Your task to perform on an android device: Open Amazon Image 0: 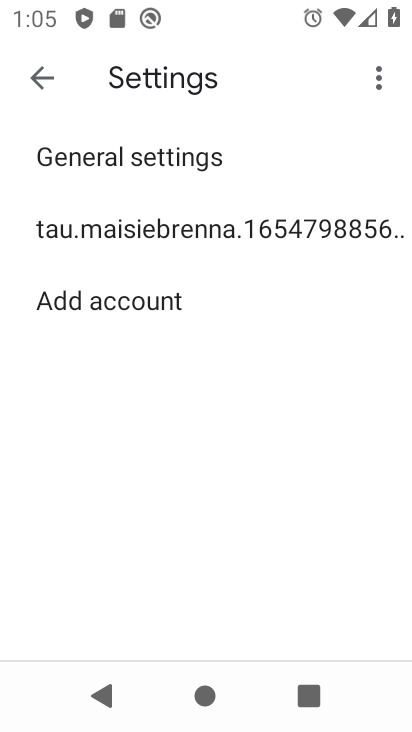
Step 0: press home button
Your task to perform on an android device: Open Amazon Image 1: 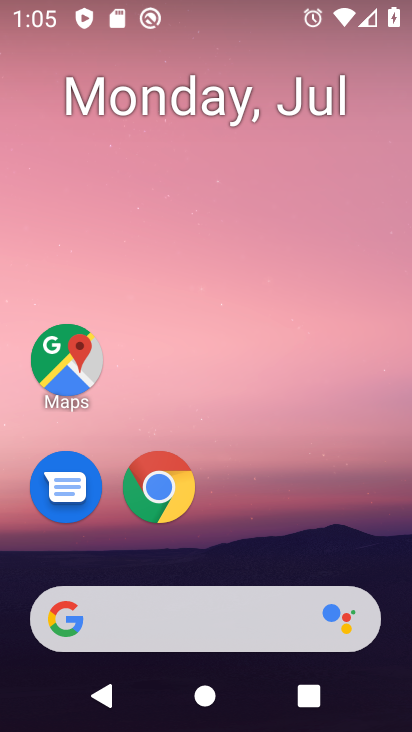
Step 1: drag from (292, 546) to (319, 45)
Your task to perform on an android device: Open Amazon Image 2: 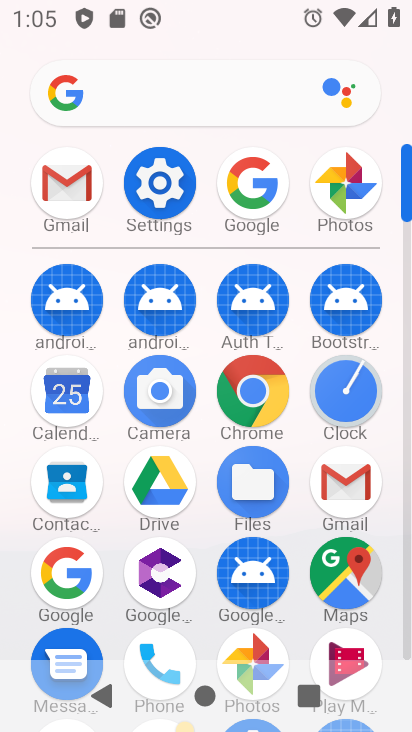
Step 2: click (74, 583)
Your task to perform on an android device: Open Amazon Image 3: 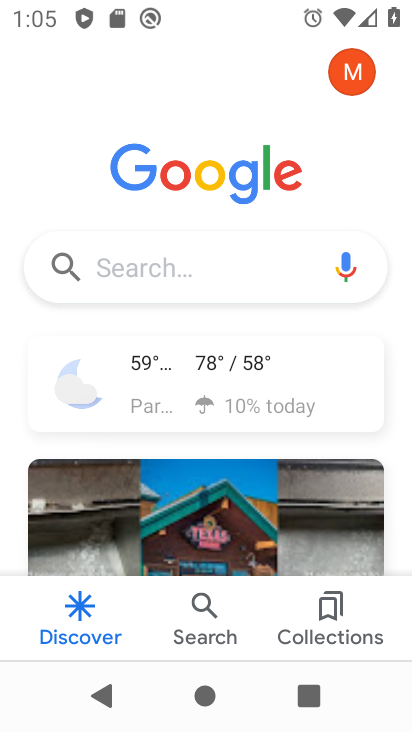
Step 3: type " Amazon"
Your task to perform on an android device: Open Amazon Image 4: 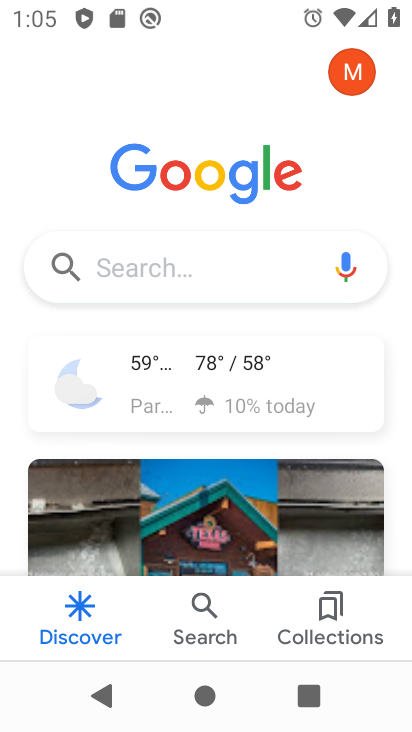
Step 4: click (108, 270)
Your task to perform on an android device: Open Amazon Image 5: 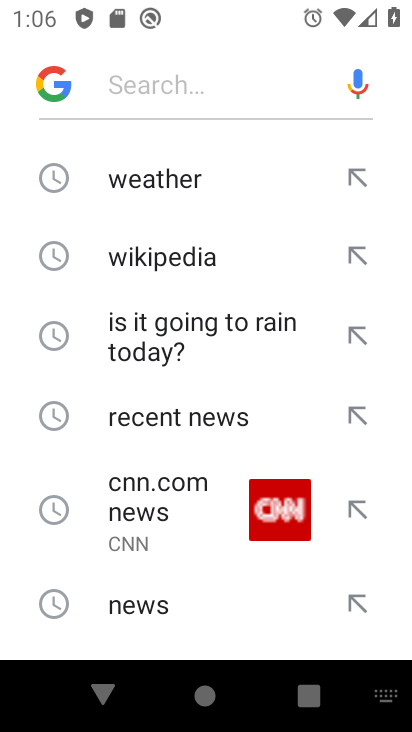
Step 5: press enter
Your task to perform on an android device: Open Amazon Image 6: 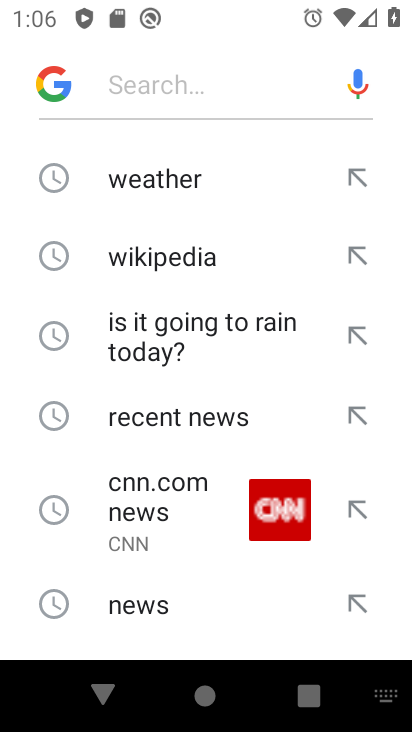
Step 6: click (171, 83)
Your task to perform on an android device: Open Amazon Image 7: 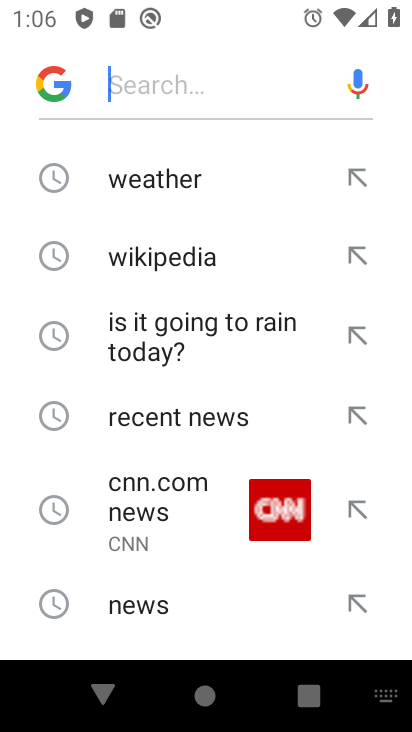
Step 7: type " Amazon"
Your task to perform on an android device: Open Amazon Image 8: 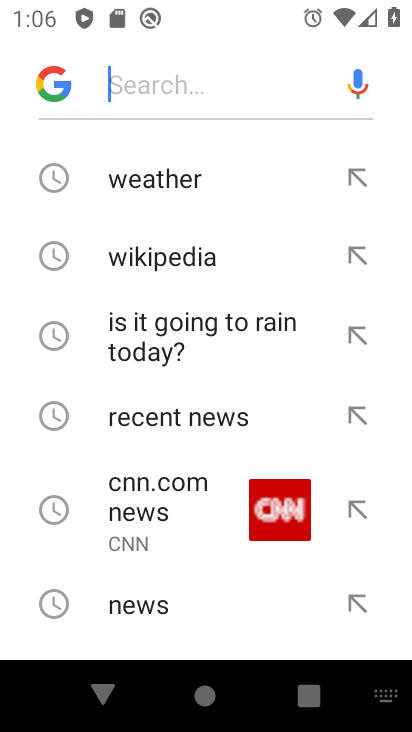
Step 8: click (160, 88)
Your task to perform on an android device: Open Amazon Image 9: 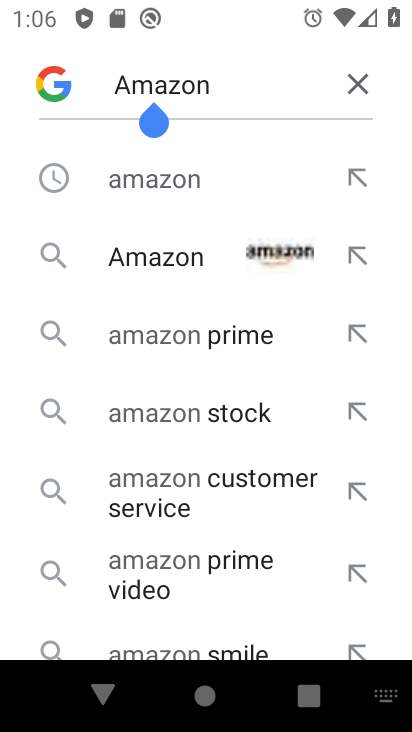
Step 9: click (275, 256)
Your task to perform on an android device: Open Amazon Image 10: 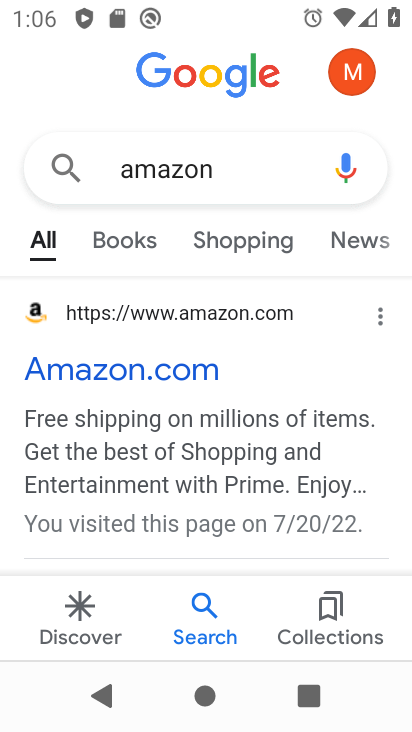
Step 10: click (171, 368)
Your task to perform on an android device: Open Amazon Image 11: 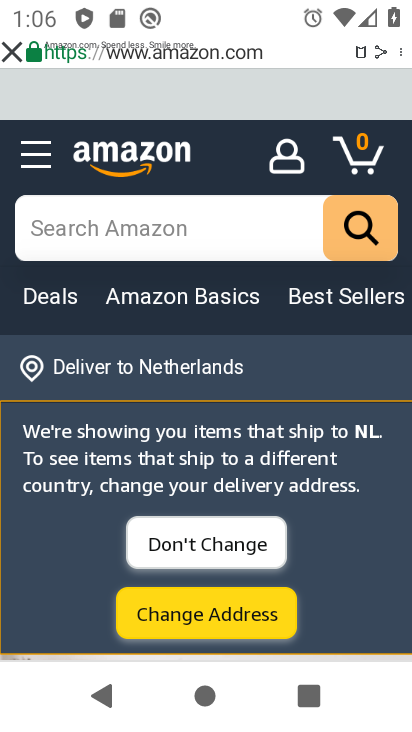
Step 11: task complete